Your task to perform on an android device: visit the assistant section in the google photos Image 0: 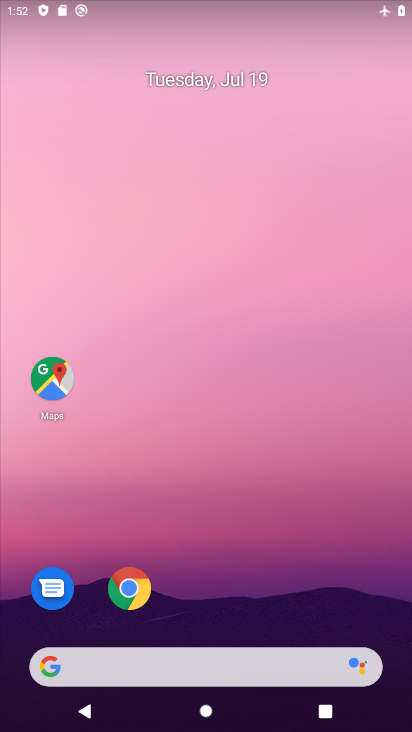
Step 0: press home button
Your task to perform on an android device: visit the assistant section in the google photos Image 1: 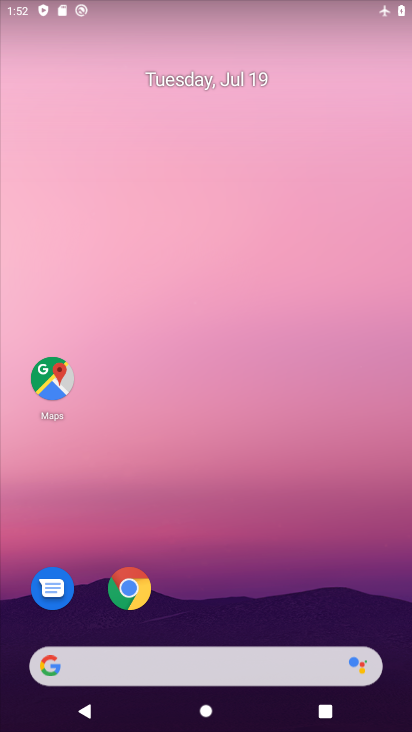
Step 1: drag from (252, 603) to (311, 31)
Your task to perform on an android device: visit the assistant section in the google photos Image 2: 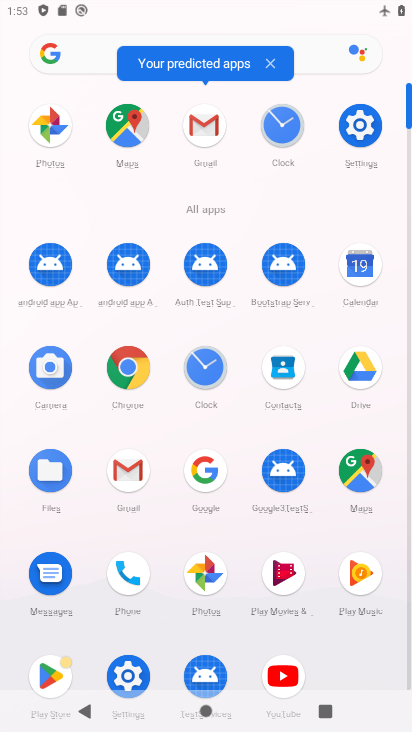
Step 2: click (217, 567)
Your task to perform on an android device: visit the assistant section in the google photos Image 3: 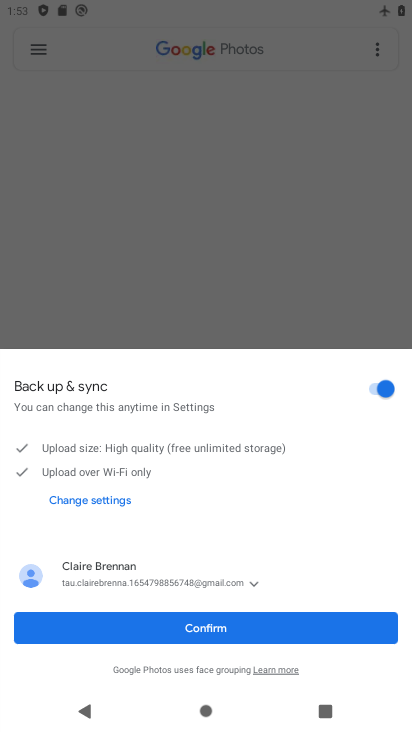
Step 3: click (163, 633)
Your task to perform on an android device: visit the assistant section in the google photos Image 4: 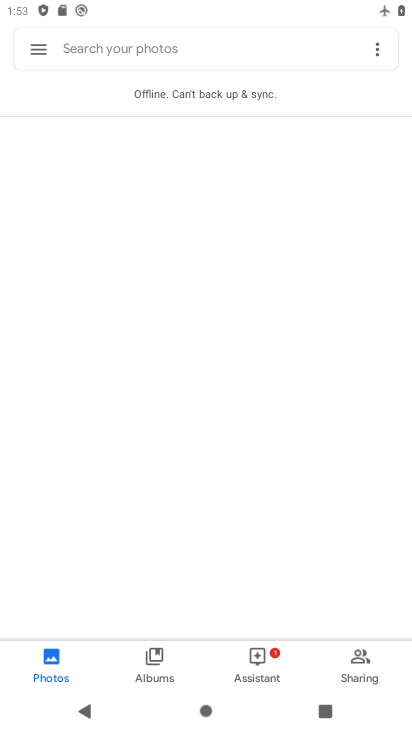
Step 4: click (254, 661)
Your task to perform on an android device: visit the assistant section in the google photos Image 5: 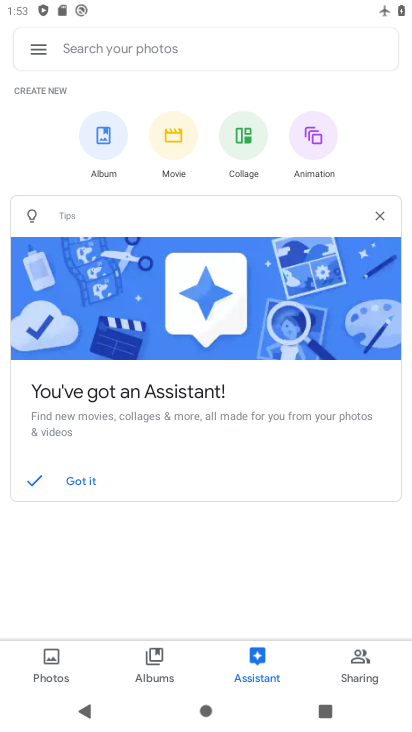
Step 5: task complete